Your task to perform on an android device: check out phone information Image 0: 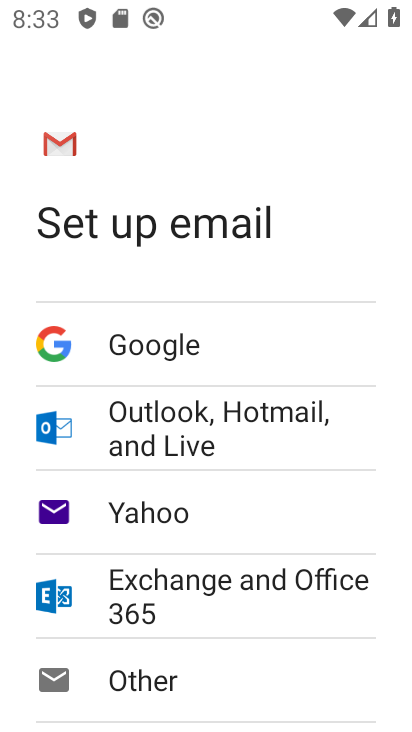
Step 0: press home button
Your task to perform on an android device: check out phone information Image 1: 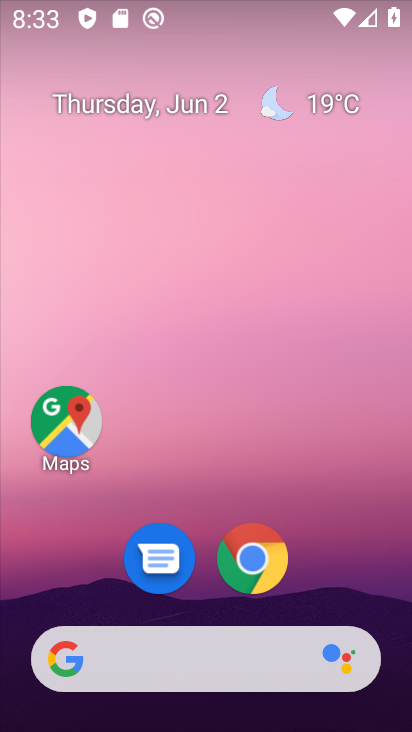
Step 1: drag from (351, 497) to (359, 52)
Your task to perform on an android device: check out phone information Image 2: 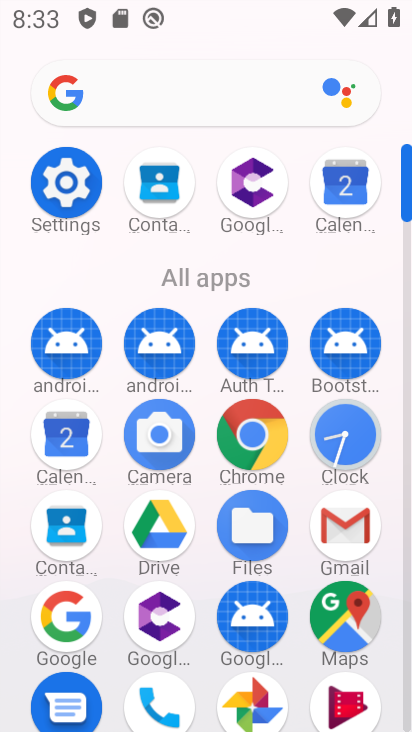
Step 2: drag from (197, 650) to (217, 459)
Your task to perform on an android device: check out phone information Image 3: 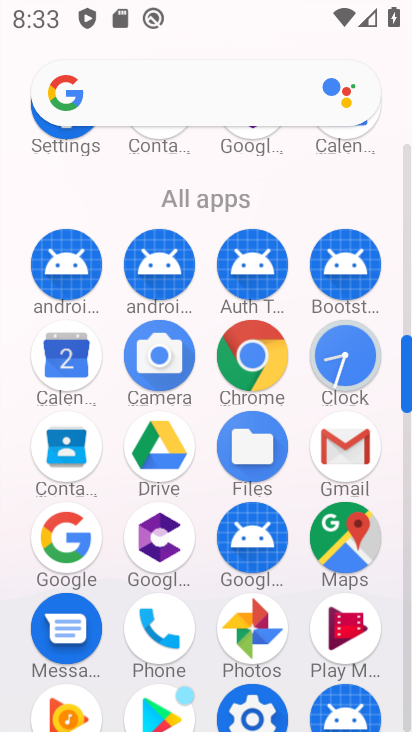
Step 3: click (164, 625)
Your task to perform on an android device: check out phone information Image 4: 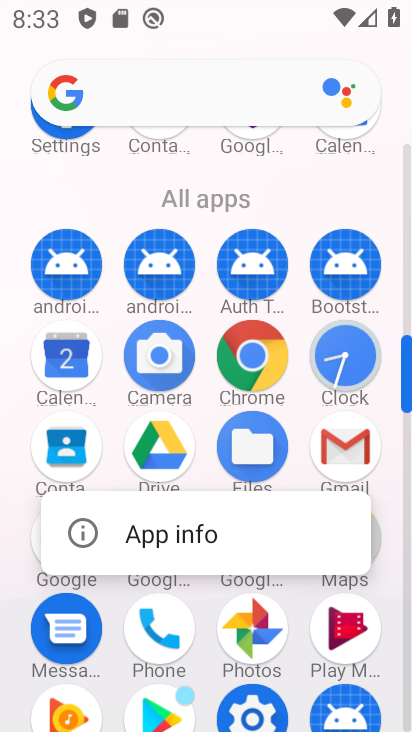
Step 4: click (177, 554)
Your task to perform on an android device: check out phone information Image 5: 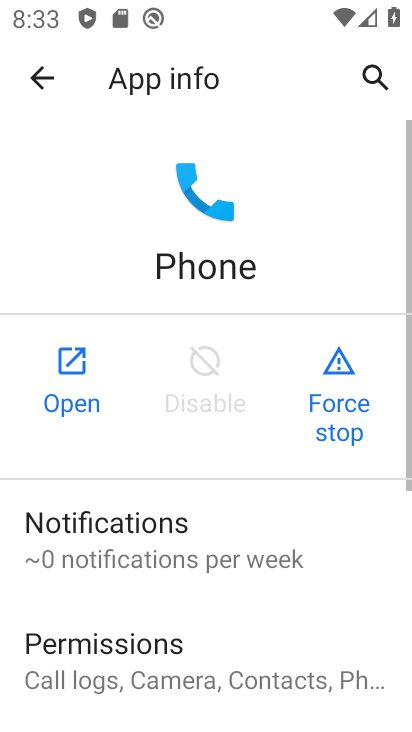
Step 5: task complete